Your task to perform on an android device: Open Chrome and go to settings Image 0: 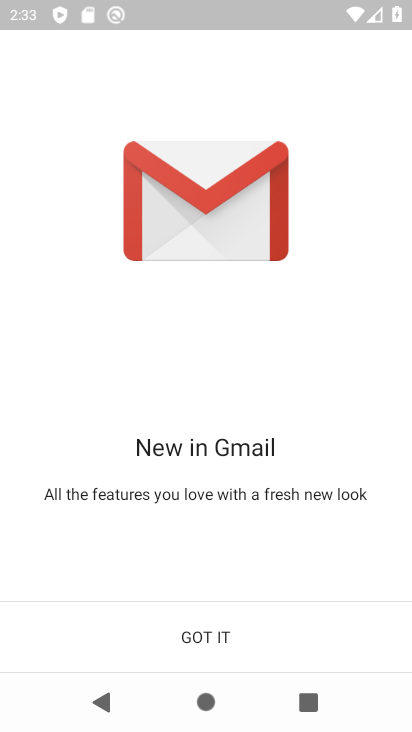
Step 0: press home button
Your task to perform on an android device: Open Chrome and go to settings Image 1: 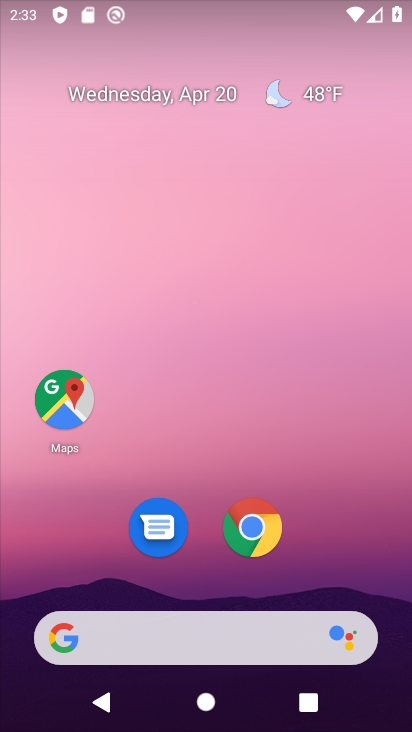
Step 1: click (240, 526)
Your task to perform on an android device: Open Chrome and go to settings Image 2: 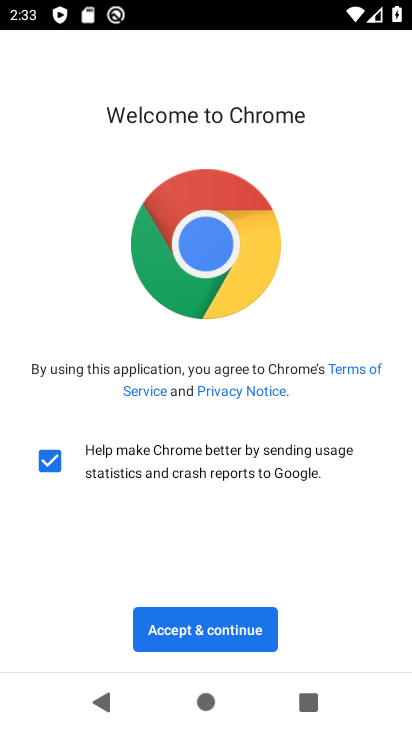
Step 2: click (253, 636)
Your task to perform on an android device: Open Chrome and go to settings Image 3: 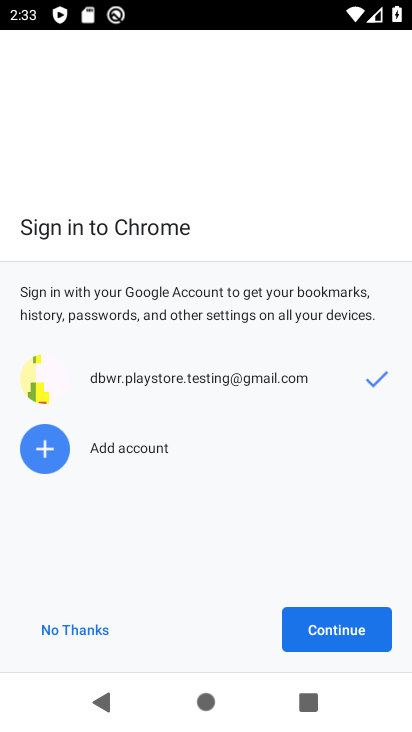
Step 3: click (309, 634)
Your task to perform on an android device: Open Chrome and go to settings Image 4: 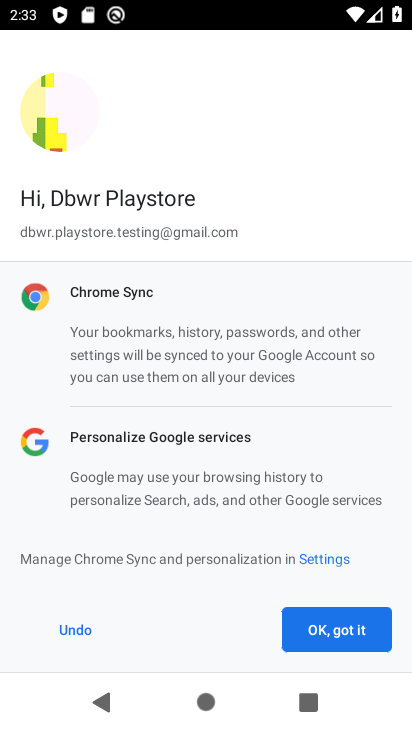
Step 4: click (310, 634)
Your task to perform on an android device: Open Chrome and go to settings Image 5: 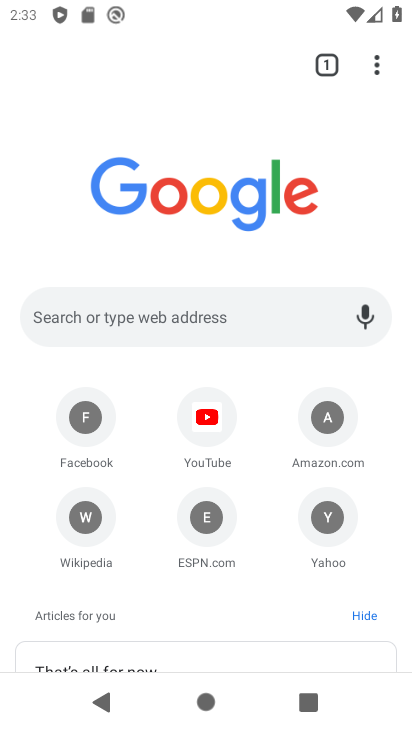
Step 5: click (377, 74)
Your task to perform on an android device: Open Chrome and go to settings Image 6: 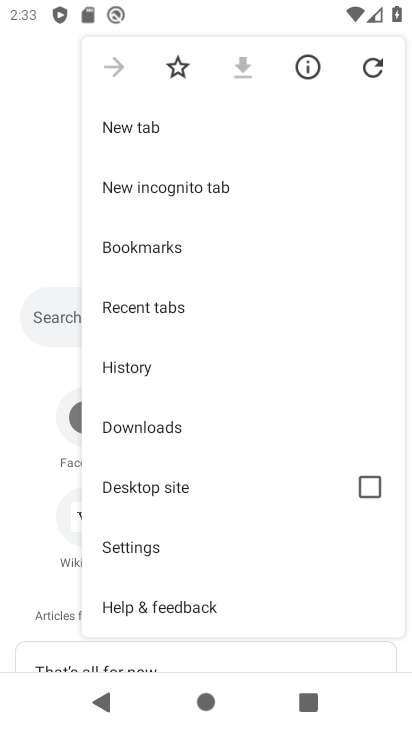
Step 6: click (121, 555)
Your task to perform on an android device: Open Chrome and go to settings Image 7: 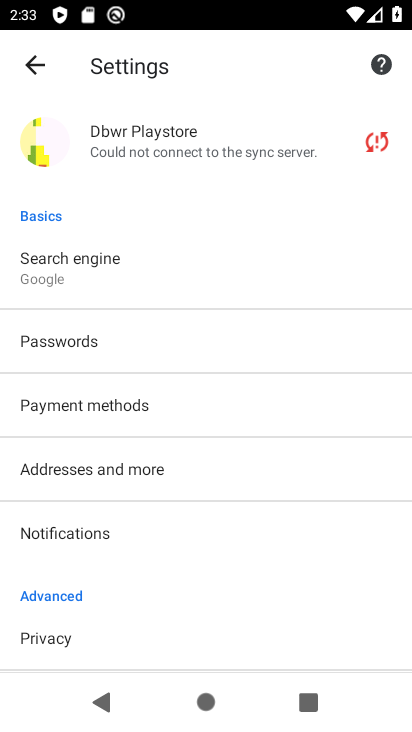
Step 7: task complete